Your task to perform on an android device: open chrome and create a bookmark for the current page Image 0: 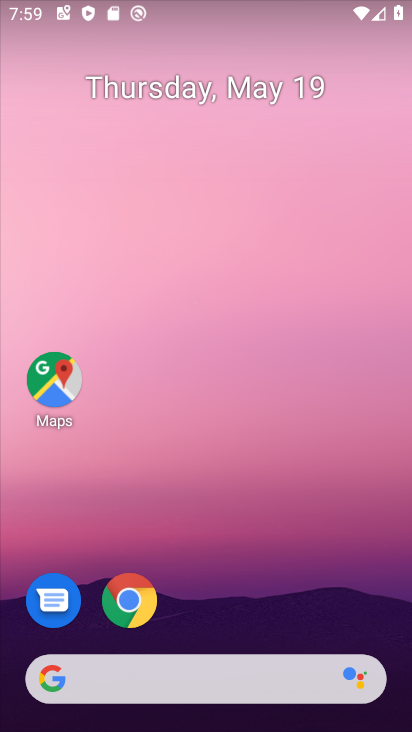
Step 0: click (140, 612)
Your task to perform on an android device: open chrome and create a bookmark for the current page Image 1: 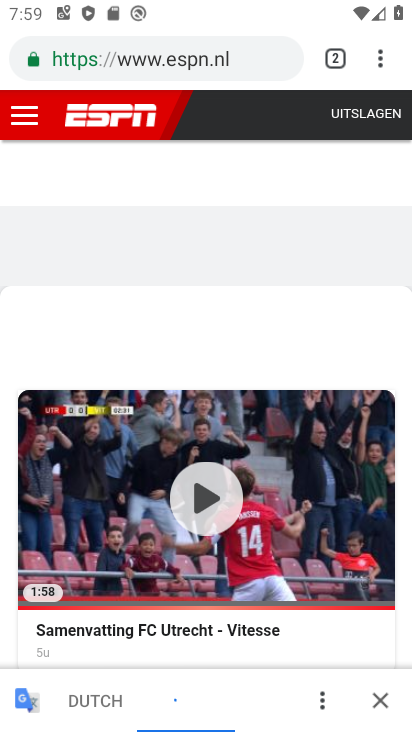
Step 1: click (379, 58)
Your task to perform on an android device: open chrome and create a bookmark for the current page Image 2: 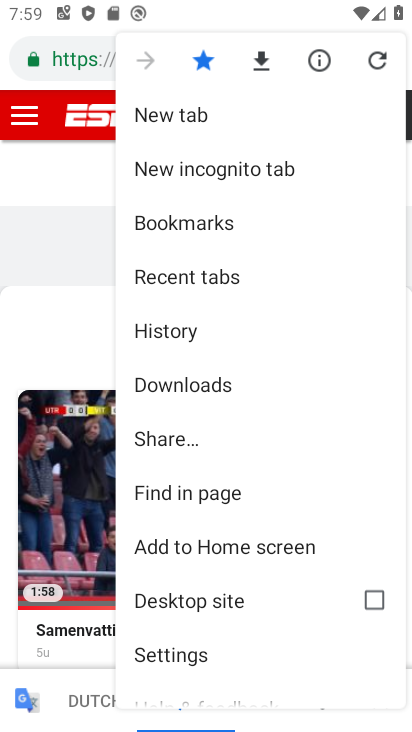
Step 2: task complete